Your task to perform on an android device: change the clock display to show seconds Image 0: 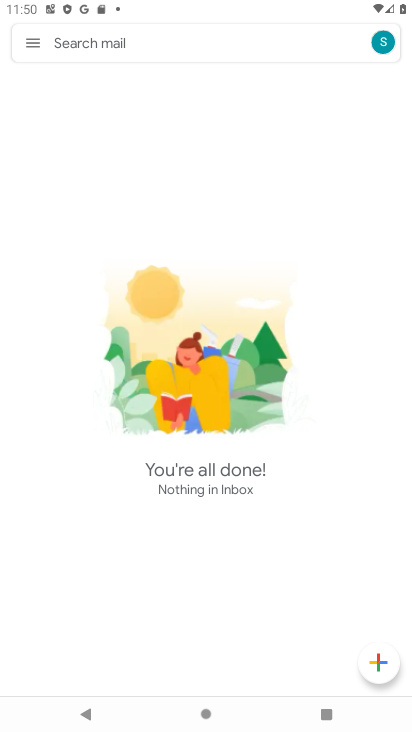
Step 0: press home button
Your task to perform on an android device: change the clock display to show seconds Image 1: 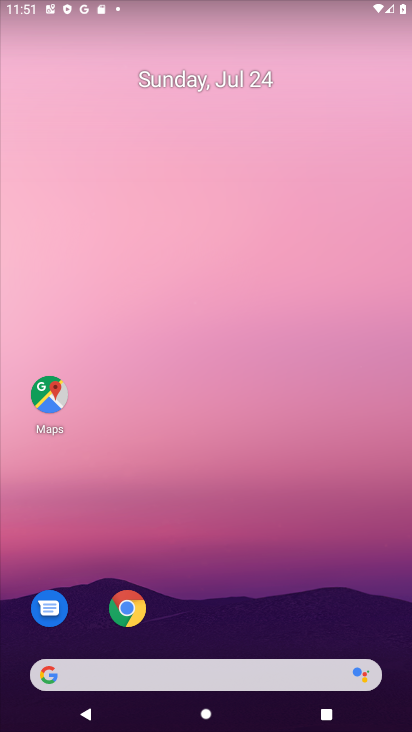
Step 1: drag from (220, 519) to (200, 12)
Your task to perform on an android device: change the clock display to show seconds Image 2: 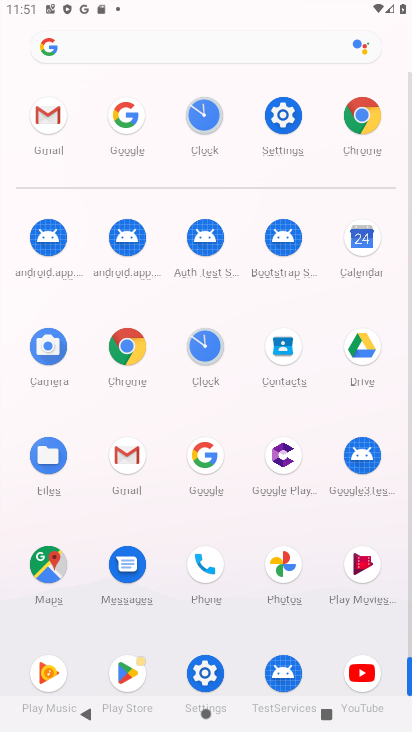
Step 2: click (197, 344)
Your task to perform on an android device: change the clock display to show seconds Image 3: 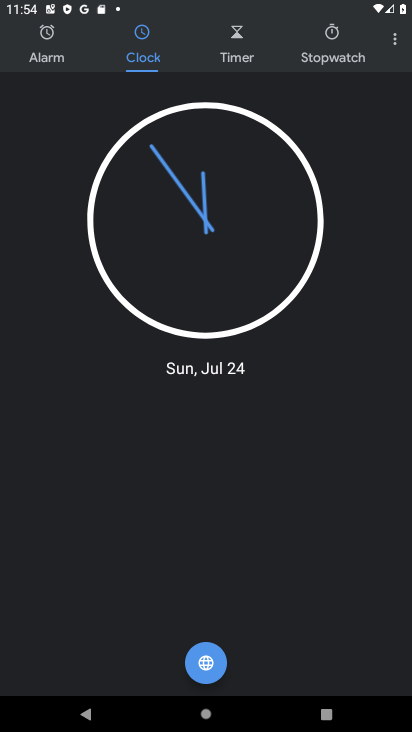
Step 3: click (404, 37)
Your task to perform on an android device: change the clock display to show seconds Image 4: 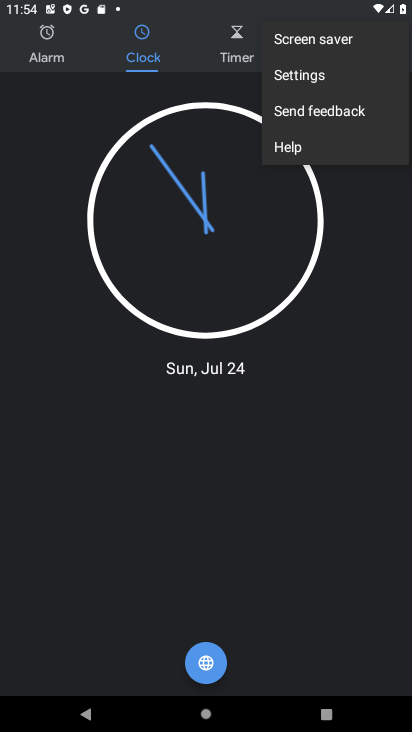
Step 4: click (296, 78)
Your task to perform on an android device: change the clock display to show seconds Image 5: 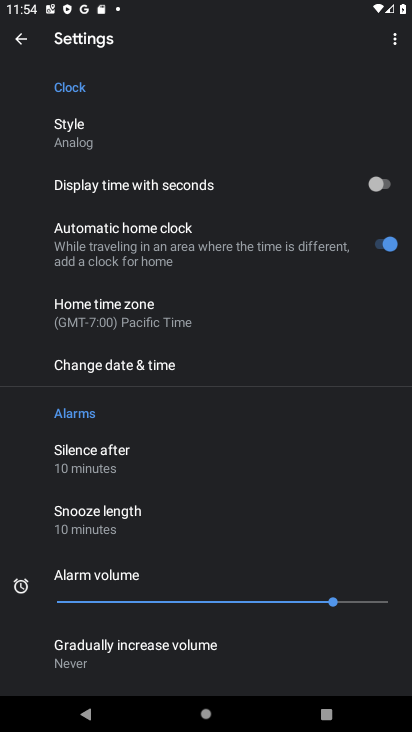
Step 5: click (386, 189)
Your task to perform on an android device: change the clock display to show seconds Image 6: 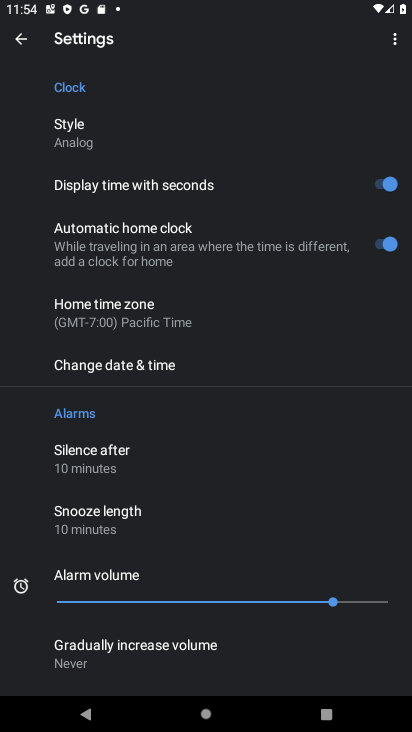
Step 6: task complete